Your task to perform on an android device: delete a single message in the gmail app Image 0: 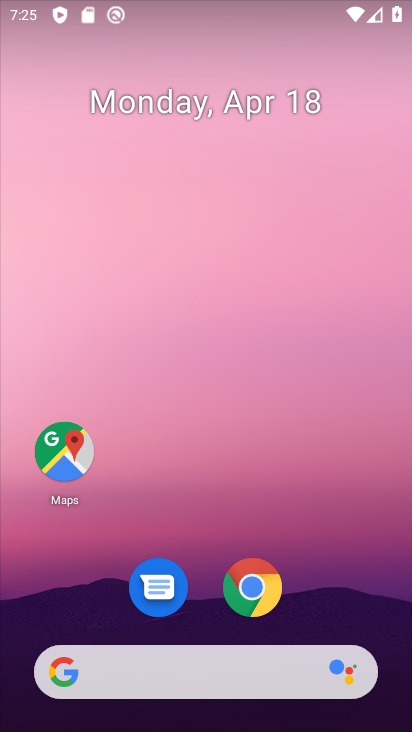
Step 0: drag from (377, 500) to (399, 131)
Your task to perform on an android device: delete a single message in the gmail app Image 1: 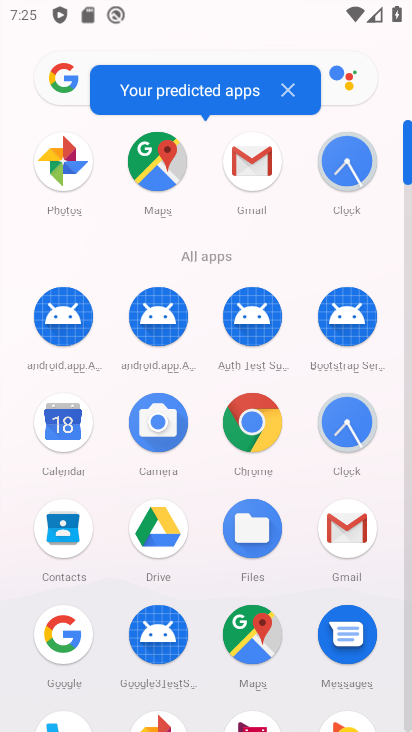
Step 1: click (345, 522)
Your task to perform on an android device: delete a single message in the gmail app Image 2: 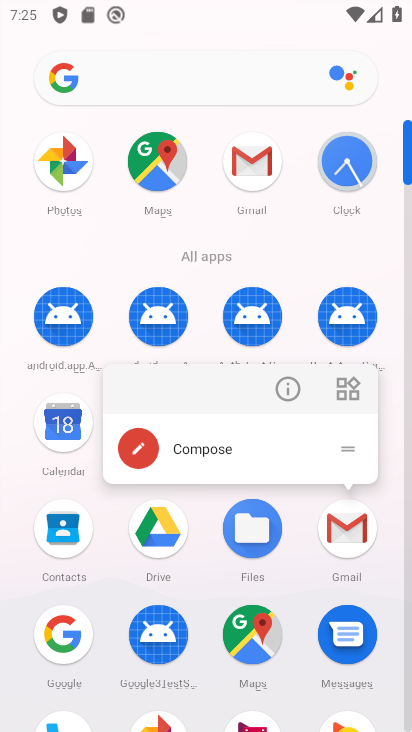
Step 2: click (345, 522)
Your task to perform on an android device: delete a single message in the gmail app Image 3: 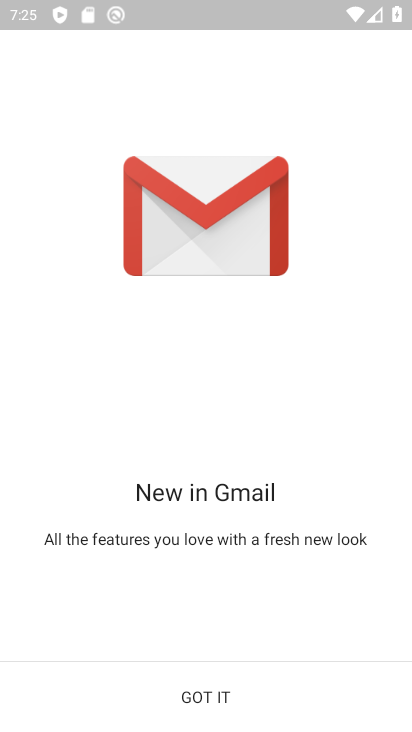
Step 3: click (230, 685)
Your task to perform on an android device: delete a single message in the gmail app Image 4: 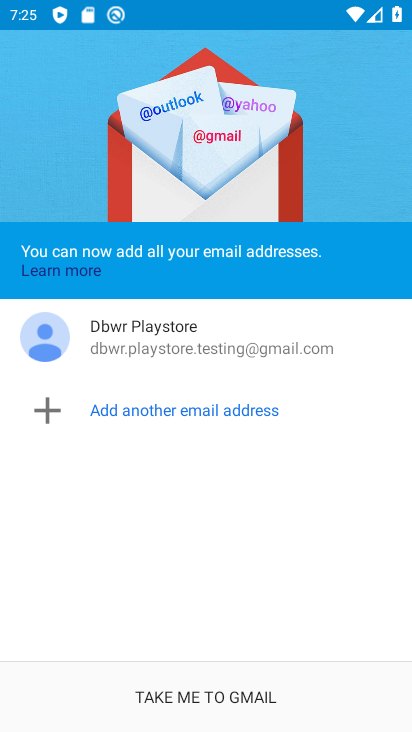
Step 4: click (232, 687)
Your task to perform on an android device: delete a single message in the gmail app Image 5: 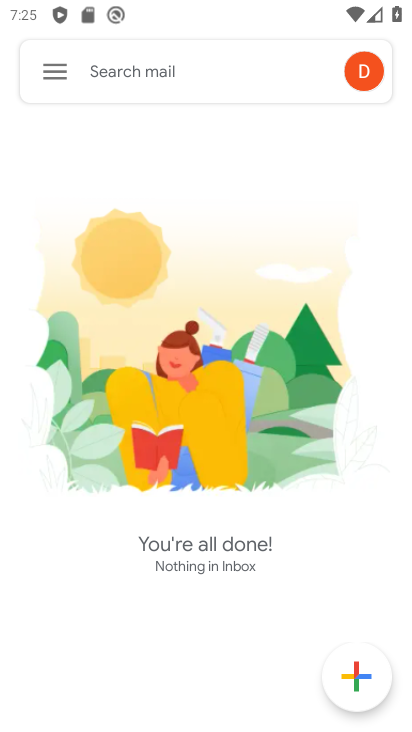
Step 5: click (57, 67)
Your task to perform on an android device: delete a single message in the gmail app Image 6: 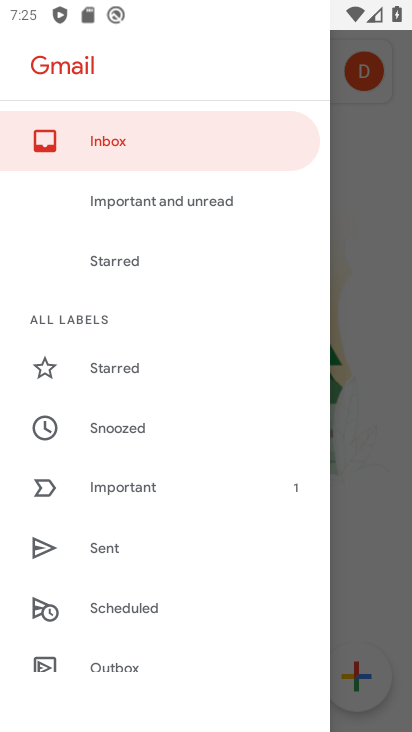
Step 6: drag from (189, 591) to (233, 164)
Your task to perform on an android device: delete a single message in the gmail app Image 7: 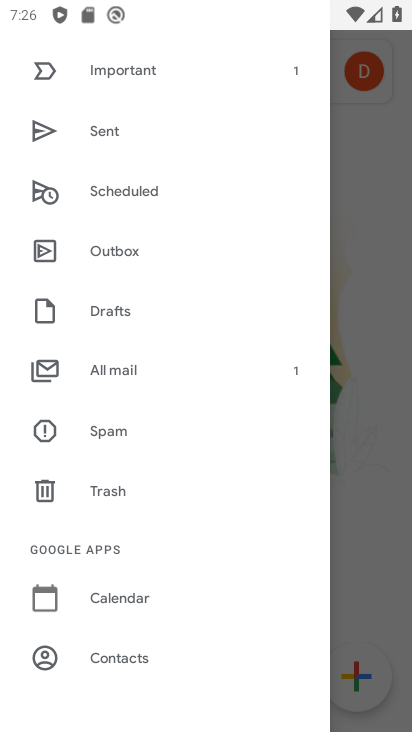
Step 7: click (140, 375)
Your task to perform on an android device: delete a single message in the gmail app Image 8: 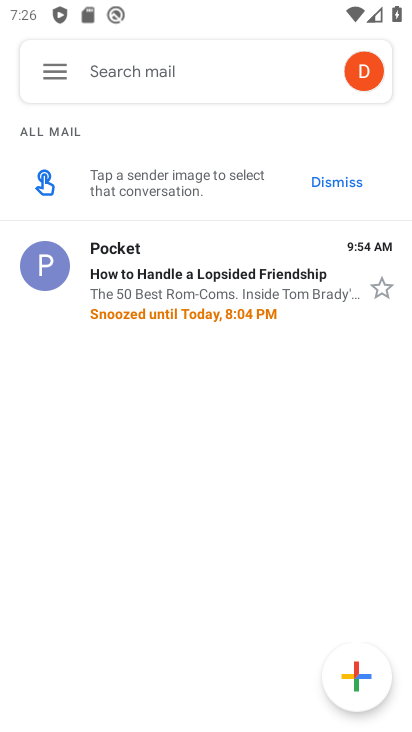
Step 8: click (140, 267)
Your task to perform on an android device: delete a single message in the gmail app Image 9: 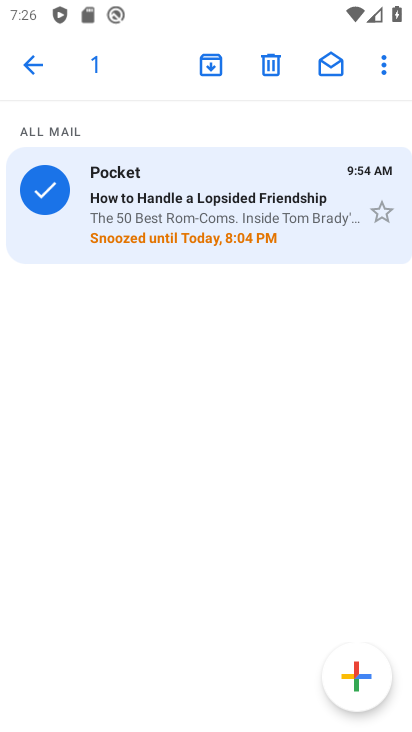
Step 9: click (273, 60)
Your task to perform on an android device: delete a single message in the gmail app Image 10: 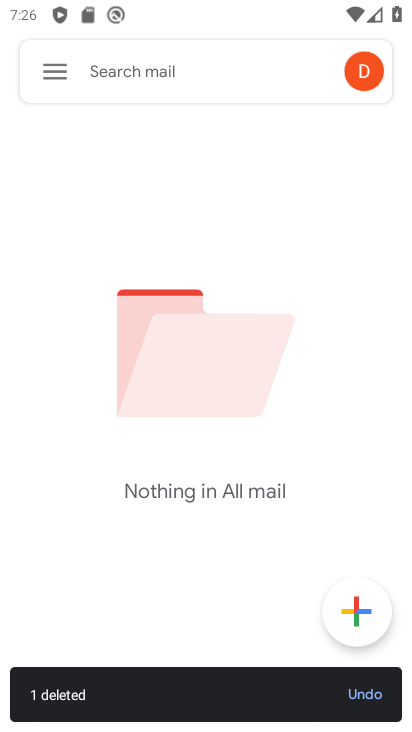
Step 10: click (382, 680)
Your task to perform on an android device: delete a single message in the gmail app Image 11: 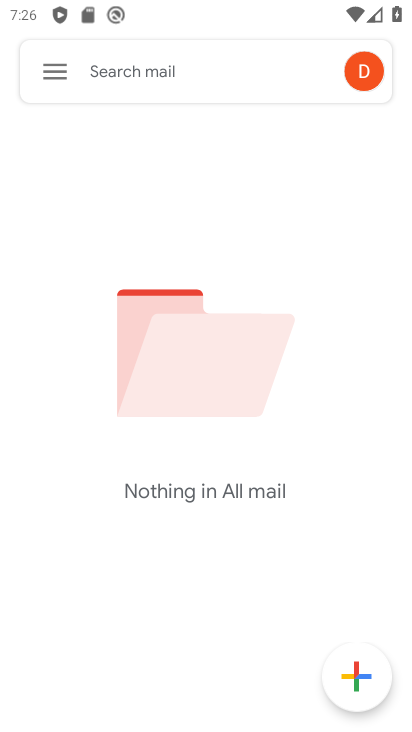
Step 11: task complete